Your task to perform on an android device: Open the web browser Image 0: 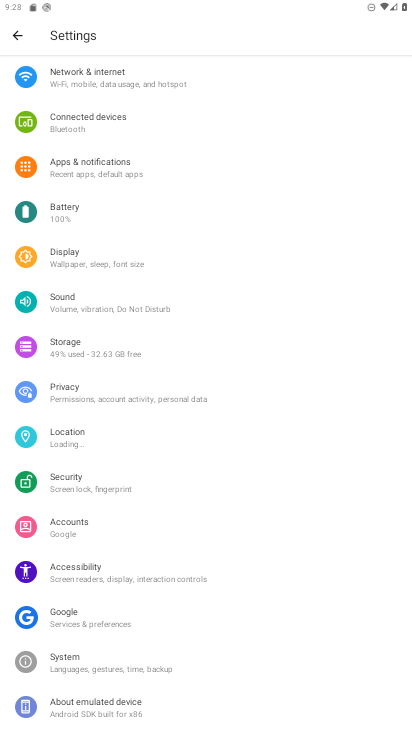
Step 0: press home button
Your task to perform on an android device: Open the web browser Image 1: 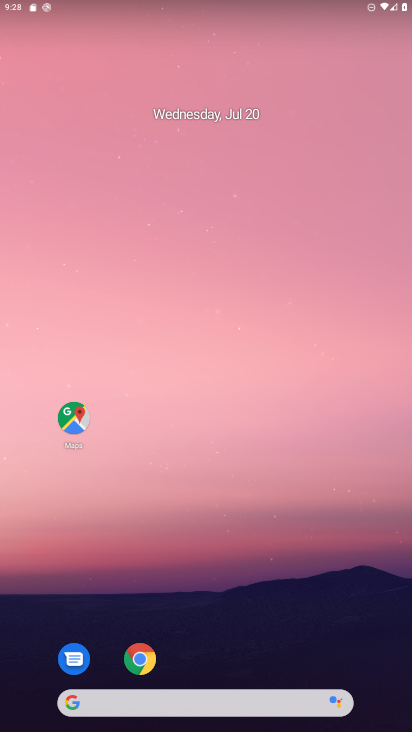
Step 1: drag from (241, 646) to (232, 80)
Your task to perform on an android device: Open the web browser Image 2: 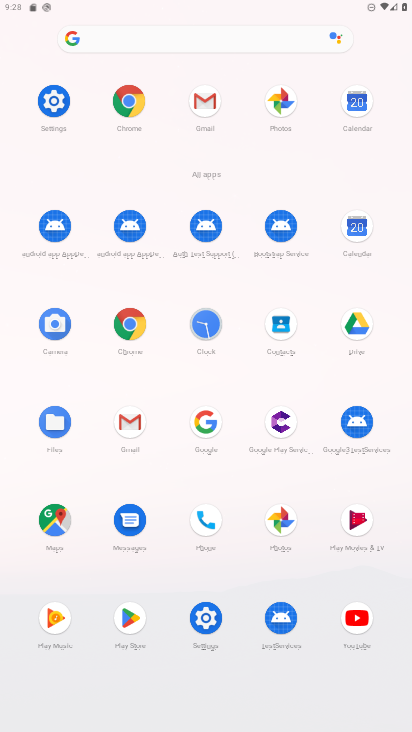
Step 2: click (120, 328)
Your task to perform on an android device: Open the web browser Image 3: 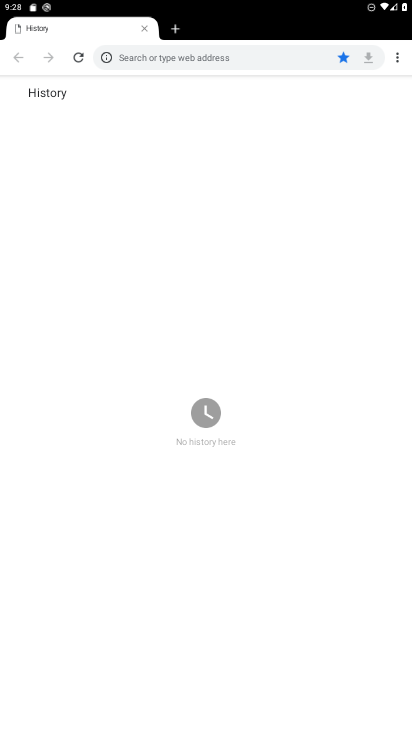
Step 3: task complete